Your task to perform on an android device: see tabs open on other devices in the chrome app Image 0: 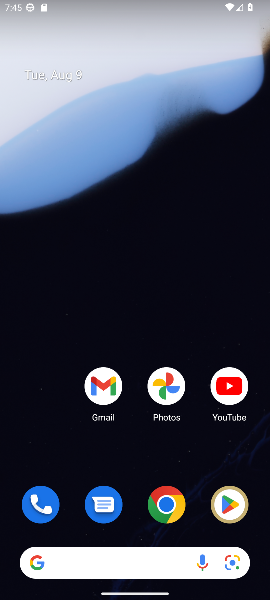
Step 0: drag from (150, 483) to (163, 64)
Your task to perform on an android device: see tabs open on other devices in the chrome app Image 1: 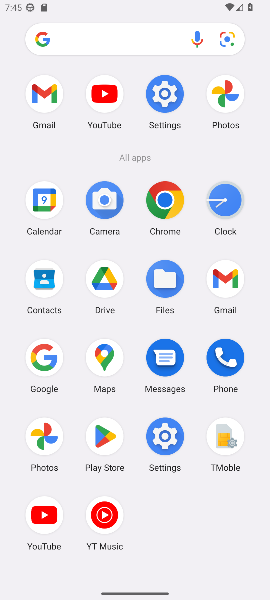
Step 1: click (157, 189)
Your task to perform on an android device: see tabs open on other devices in the chrome app Image 2: 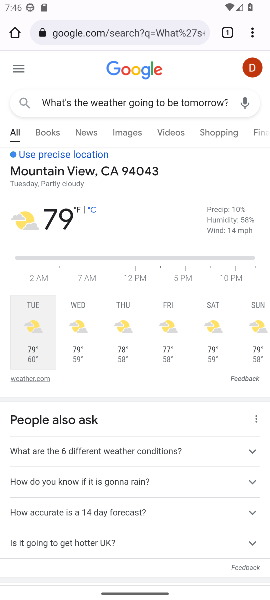
Step 2: click (251, 35)
Your task to perform on an android device: see tabs open on other devices in the chrome app Image 3: 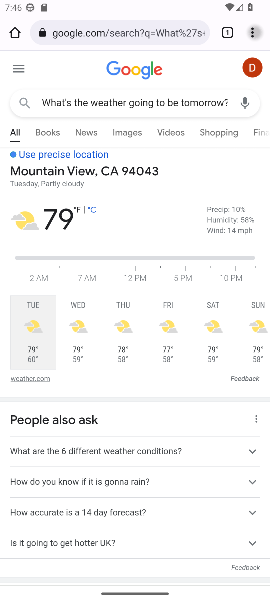
Step 3: drag from (251, 35) to (161, 451)
Your task to perform on an android device: see tabs open on other devices in the chrome app Image 4: 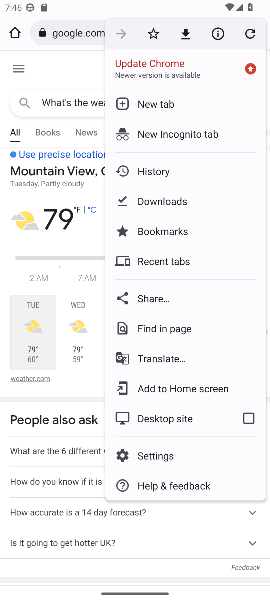
Step 4: click (161, 451)
Your task to perform on an android device: see tabs open on other devices in the chrome app Image 5: 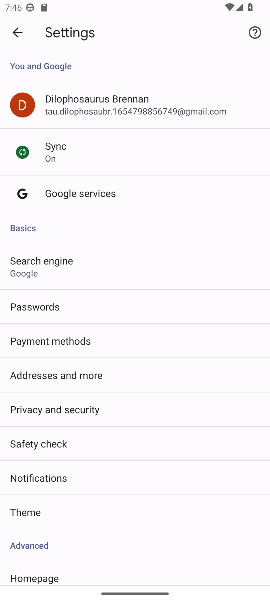
Step 5: drag from (105, 467) to (114, 205)
Your task to perform on an android device: see tabs open on other devices in the chrome app Image 6: 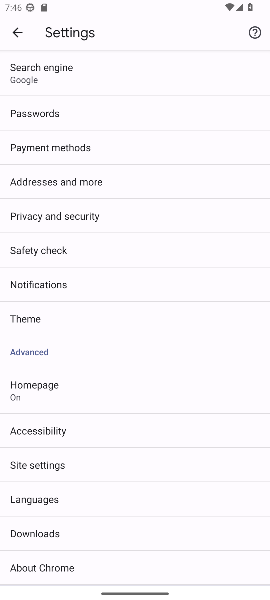
Step 6: click (9, 32)
Your task to perform on an android device: see tabs open on other devices in the chrome app Image 7: 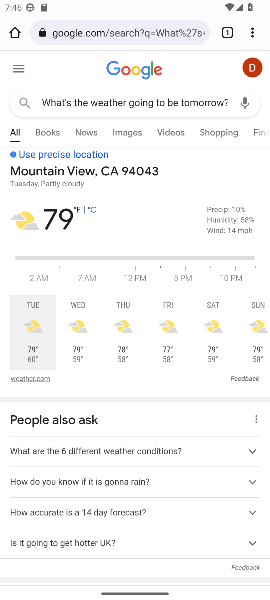
Step 7: task complete